Your task to perform on an android device: Open Maps and search for coffee Image 0: 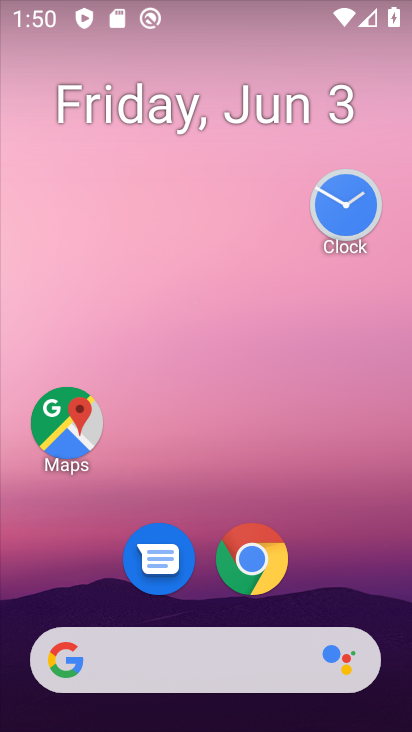
Step 0: click (84, 440)
Your task to perform on an android device: Open Maps and search for coffee Image 1: 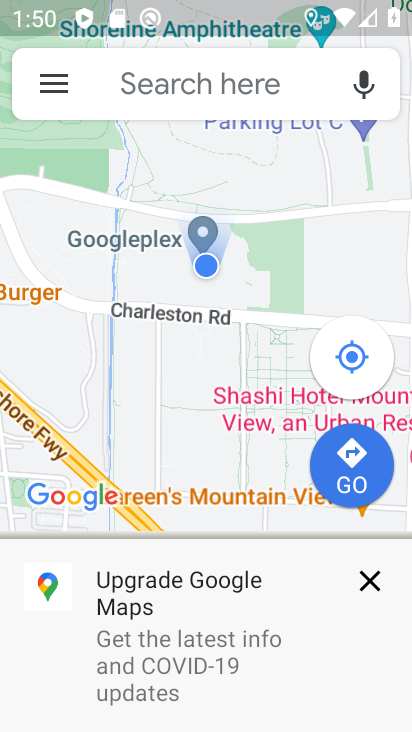
Step 1: click (177, 84)
Your task to perform on an android device: Open Maps and search for coffee Image 2: 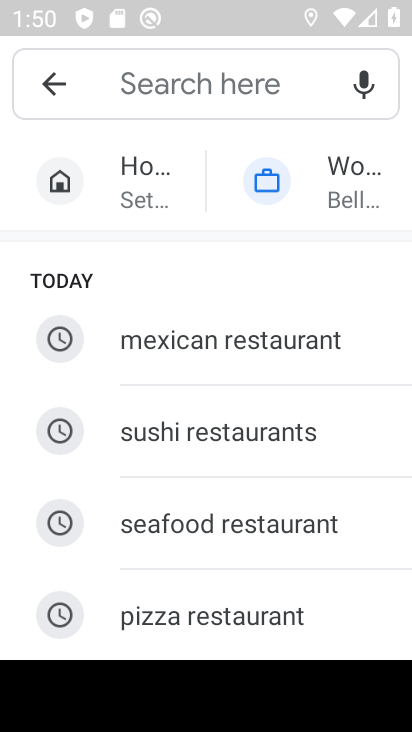
Step 2: type "coffee"
Your task to perform on an android device: Open Maps and search for coffee Image 3: 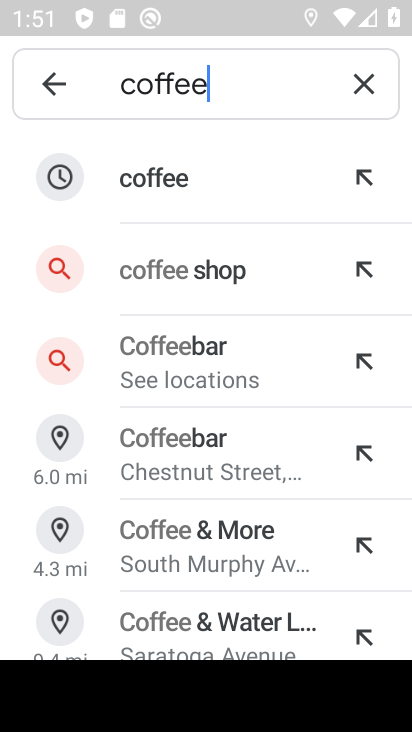
Step 3: click (267, 183)
Your task to perform on an android device: Open Maps and search for coffee Image 4: 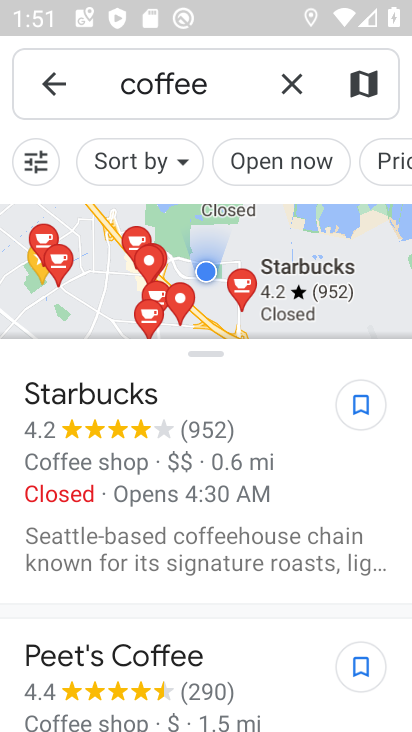
Step 4: task complete